Your task to perform on an android device: Open calendar and show me the fourth week of next month Image 0: 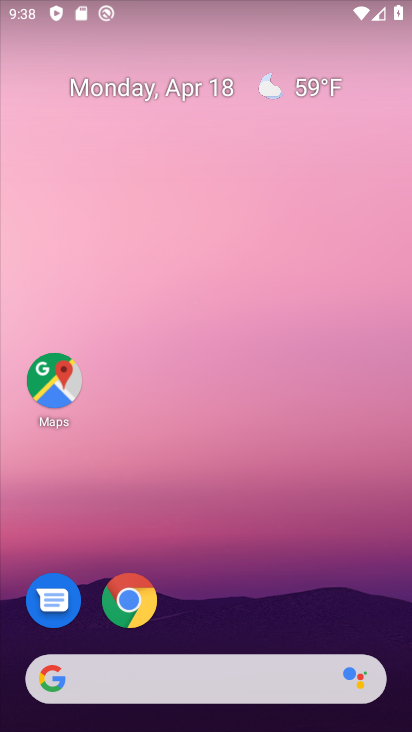
Step 0: drag from (266, 585) to (244, 14)
Your task to perform on an android device: Open calendar and show me the fourth week of next month Image 1: 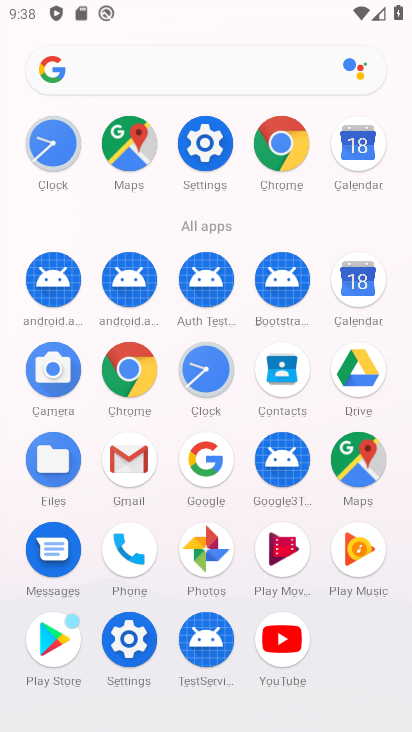
Step 1: click (353, 269)
Your task to perform on an android device: Open calendar and show me the fourth week of next month Image 2: 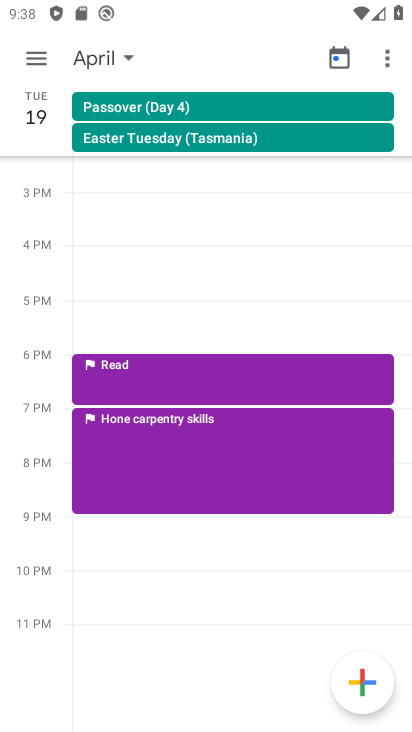
Step 2: click (32, 56)
Your task to perform on an android device: Open calendar and show me the fourth week of next month Image 3: 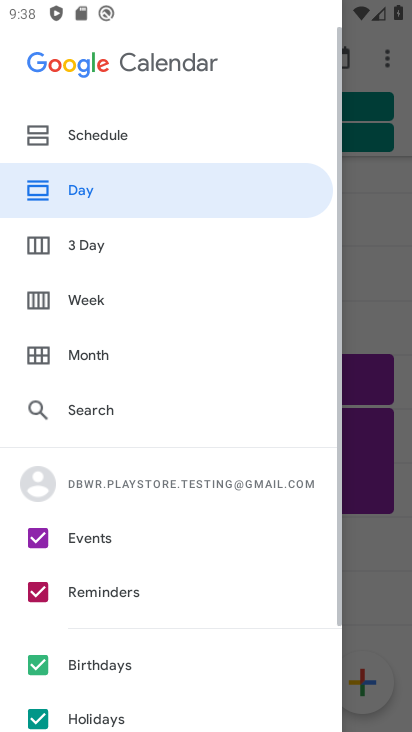
Step 3: click (73, 300)
Your task to perform on an android device: Open calendar and show me the fourth week of next month Image 4: 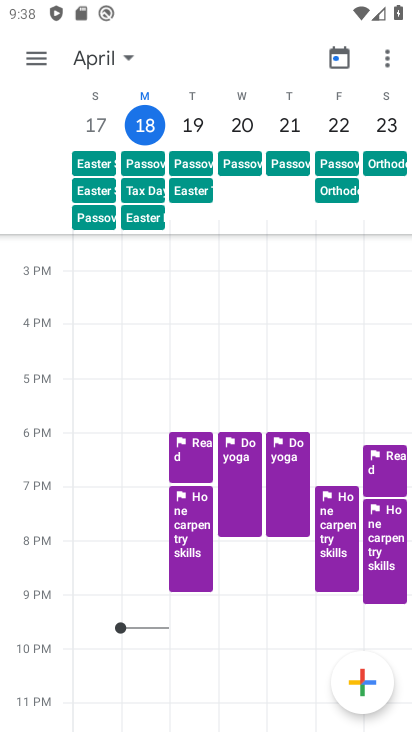
Step 4: click (131, 55)
Your task to perform on an android device: Open calendar and show me the fourth week of next month Image 5: 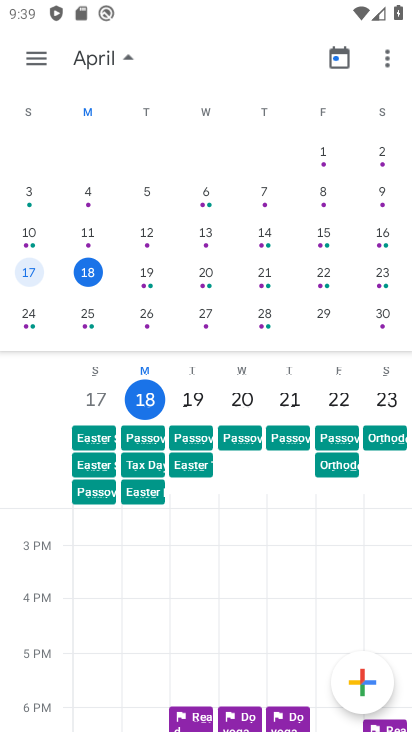
Step 5: drag from (375, 249) to (3, 188)
Your task to perform on an android device: Open calendar and show me the fourth week of next month Image 6: 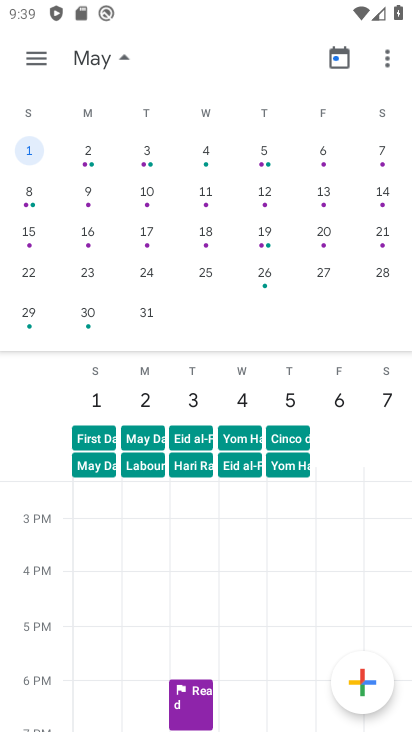
Step 6: click (149, 270)
Your task to perform on an android device: Open calendar and show me the fourth week of next month Image 7: 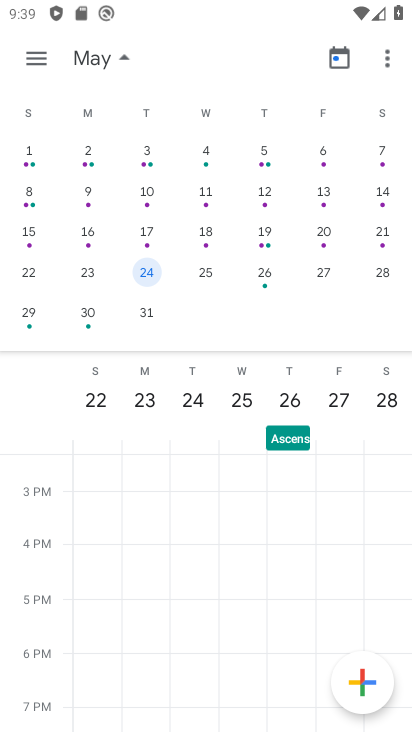
Step 7: task complete